Your task to perform on an android device: manage bookmarks in the chrome app Image 0: 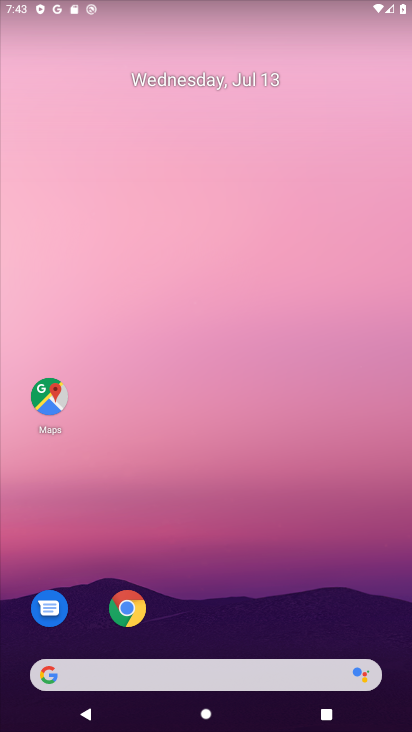
Step 0: drag from (272, 698) to (203, 197)
Your task to perform on an android device: manage bookmarks in the chrome app Image 1: 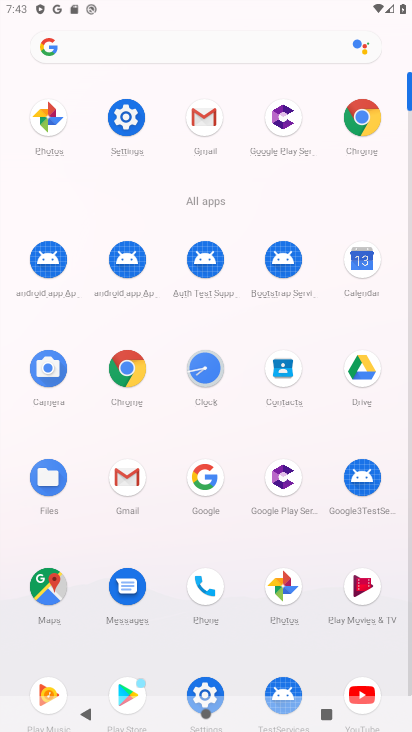
Step 1: click (359, 120)
Your task to perform on an android device: manage bookmarks in the chrome app Image 2: 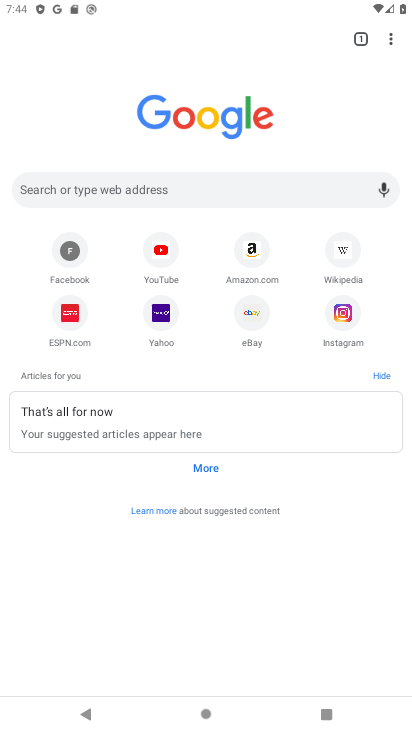
Step 2: task complete